Your task to perform on an android device: turn off picture-in-picture Image 0: 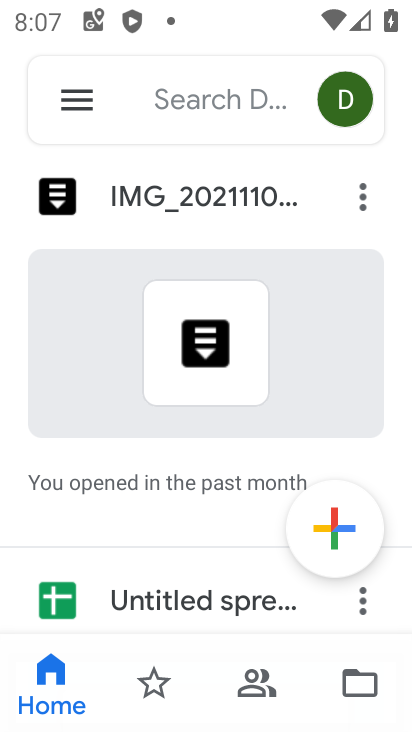
Step 0: press back button
Your task to perform on an android device: turn off picture-in-picture Image 1: 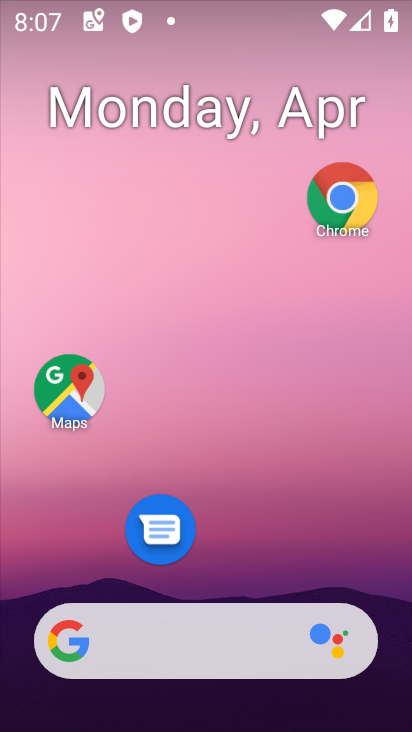
Step 1: drag from (196, 591) to (257, 82)
Your task to perform on an android device: turn off picture-in-picture Image 2: 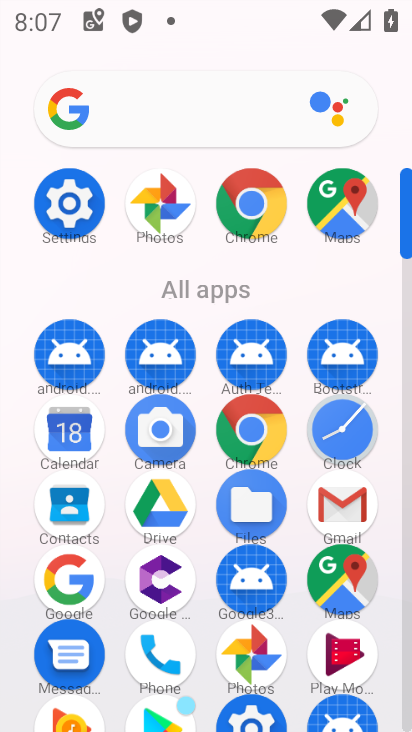
Step 2: click (67, 198)
Your task to perform on an android device: turn off picture-in-picture Image 3: 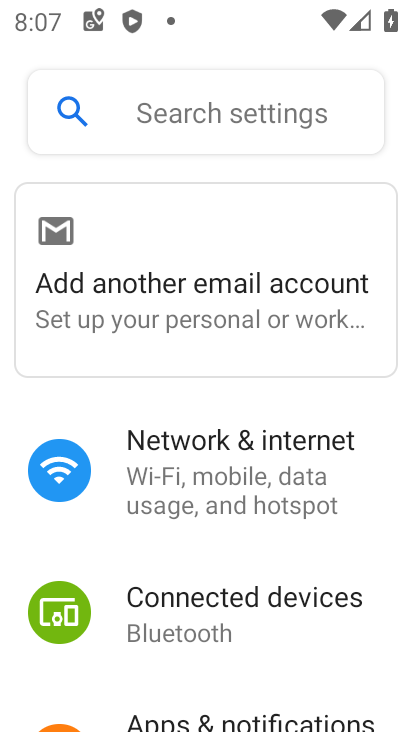
Step 3: click (235, 715)
Your task to perform on an android device: turn off picture-in-picture Image 4: 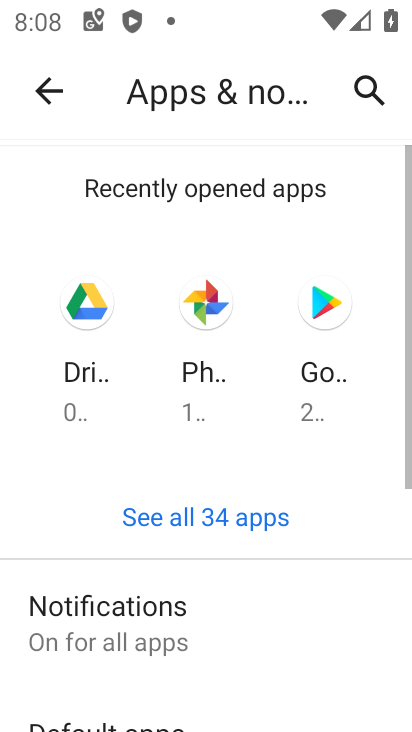
Step 4: drag from (222, 698) to (323, 182)
Your task to perform on an android device: turn off picture-in-picture Image 5: 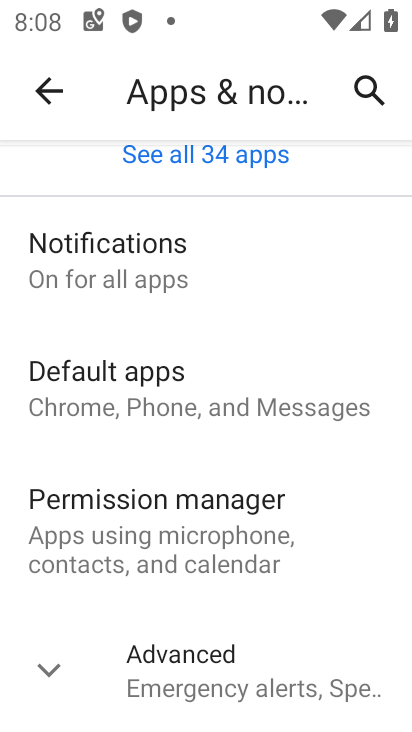
Step 5: drag from (205, 683) to (335, 215)
Your task to perform on an android device: turn off picture-in-picture Image 6: 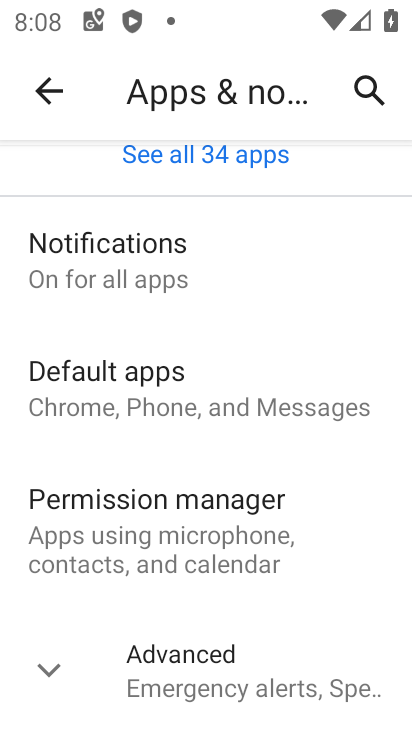
Step 6: drag from (195, 611) to (332, 89)
Your task to perform on an android device: turn off picture-in-picture Image 7: 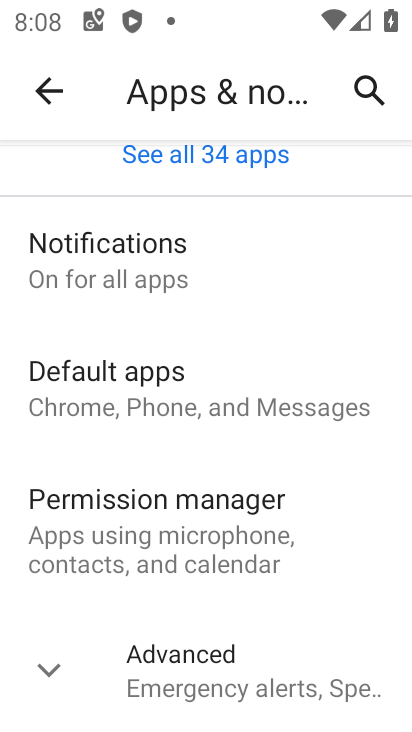
Step 7: click (253, 670)
Your task to perform on an android device: turn off picture-in-picture Image 8: 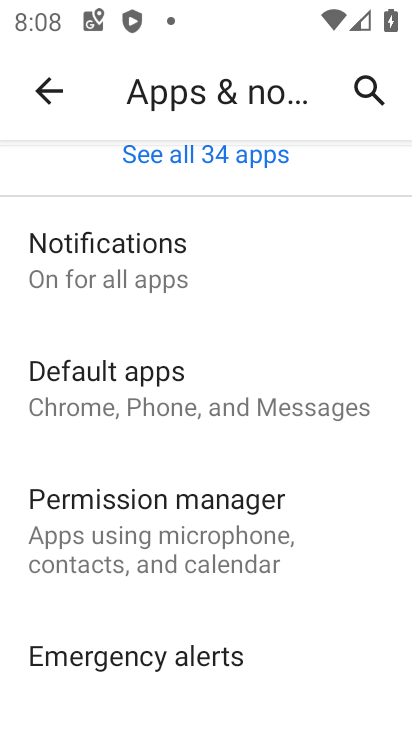
Step 8: drag from (178, 632) to (279, 173)
Your task to perform on an android device: turn off picture-in-picture Image 9: 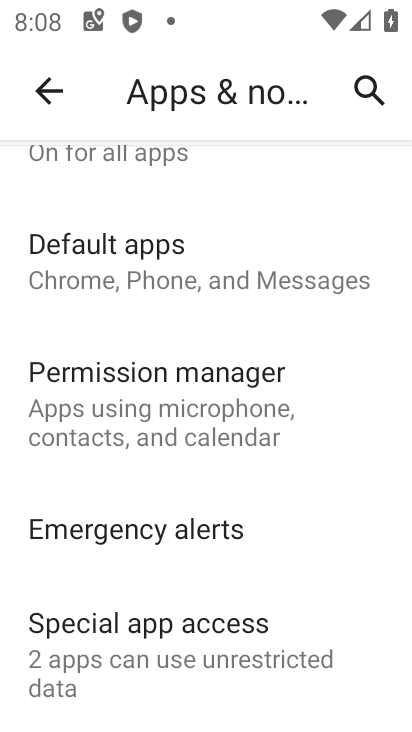
Step 9: click (203, 648)
Your task to perform on an android device: turn off picture-in-picture Image 10: 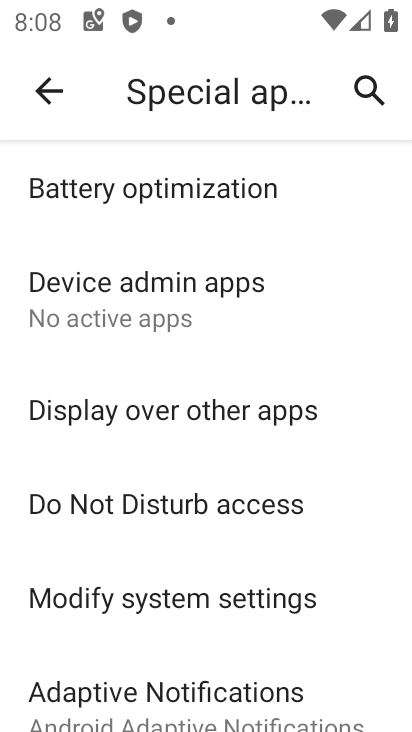
Step 10: drag from (187, 693) to (338, 124)
Your task to perform on an android device: turn off picture-in-picture Image 11: 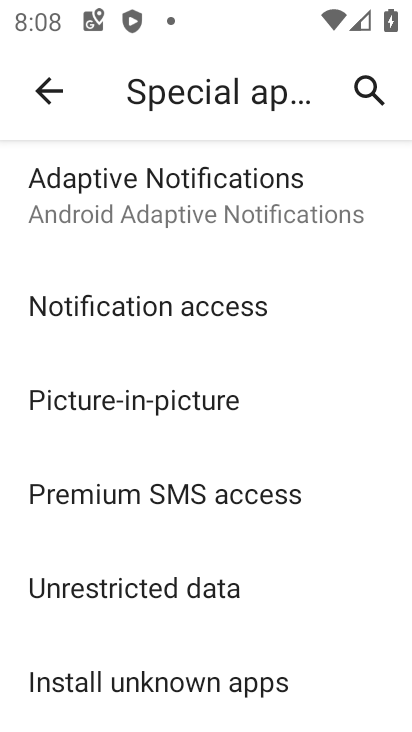
Step 11: drag from (162, 650) to (326, 84)
Your task to perform on an android device: turn off picture-in-picture Image 12: 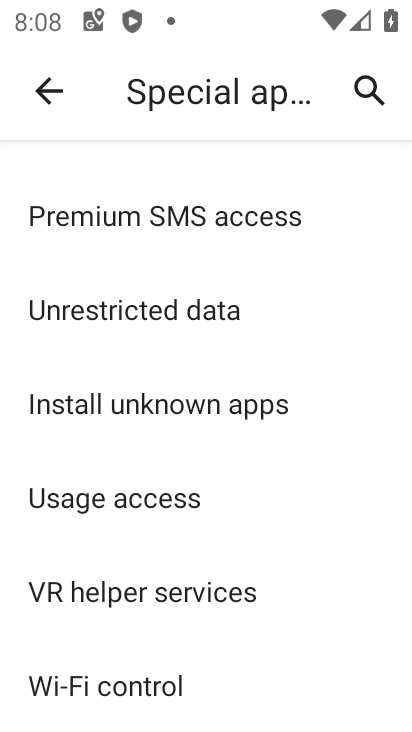
Step 12: drag from (197, 273) to (176, 646)
Your task to perform on an android device: turn off picture-in-picture Image 13: 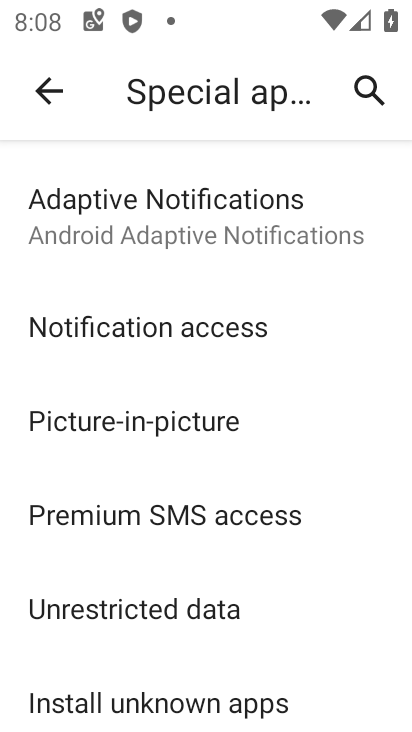
Step 13: click (117, 413)
Your task to perform on an android device: turn off picture-in-picture Image 14: 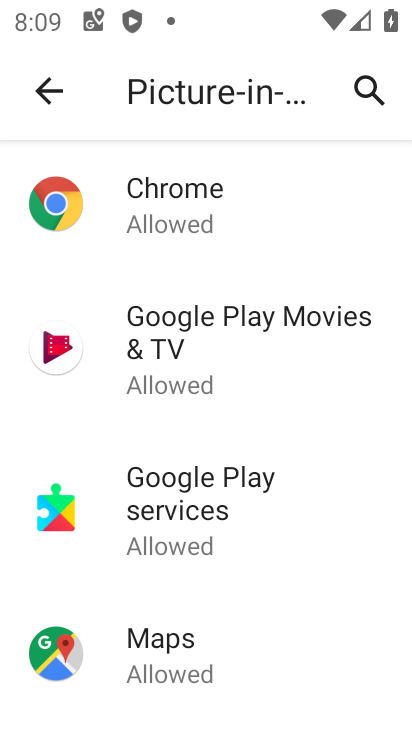
Step 14: click (229, 216)
Your task to perform on an android device: turn off picture-in-picture Image 15: 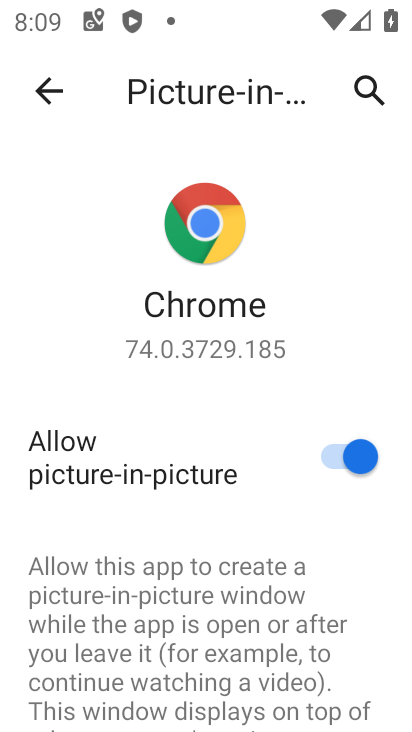
Step 15: click (350, 459)
Your task to perform on an android device: turn off picture-in-picture Image 16: 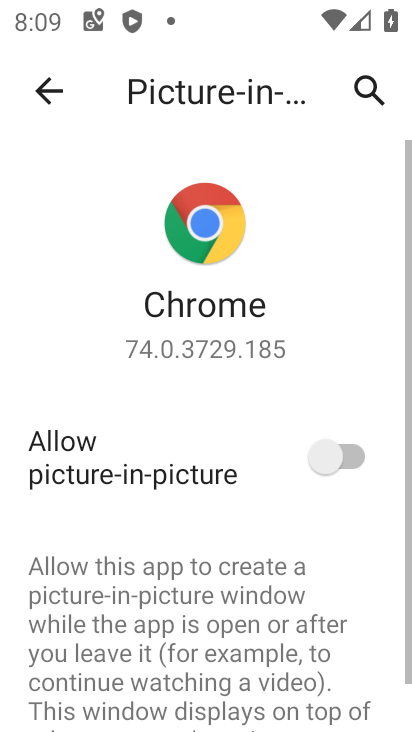
Step 16: task complete